Your task to perform on an android device: allow cookies in the chrome app Image 0: 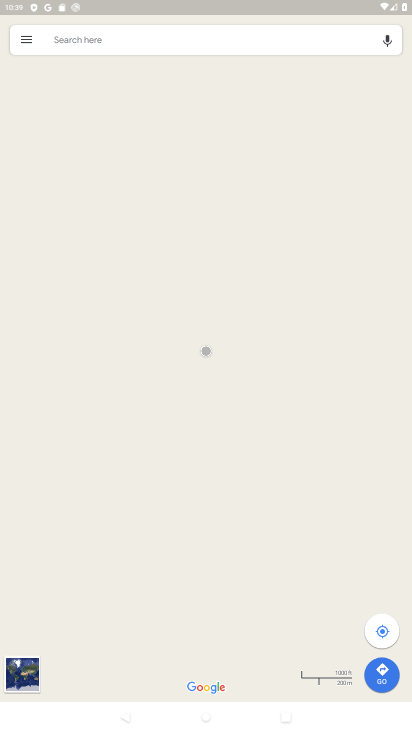
Step 0: press home button
Your task to perform on an android device: allow cookies in the chrome app Image 1: 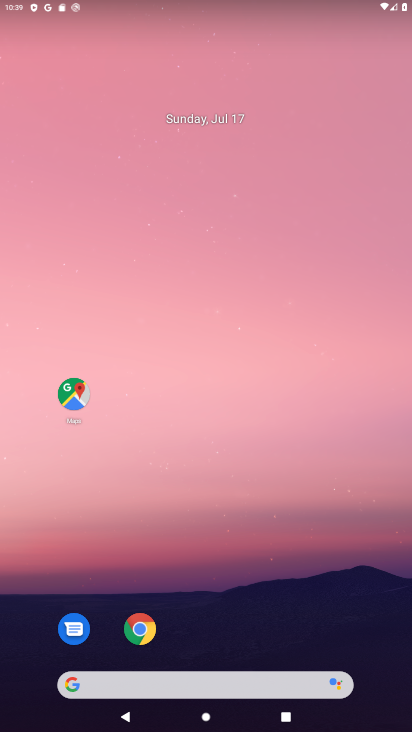
Step 1: click (139, 643)
Your task to perform on an android device: allow cookies in the chrome app Image 2: 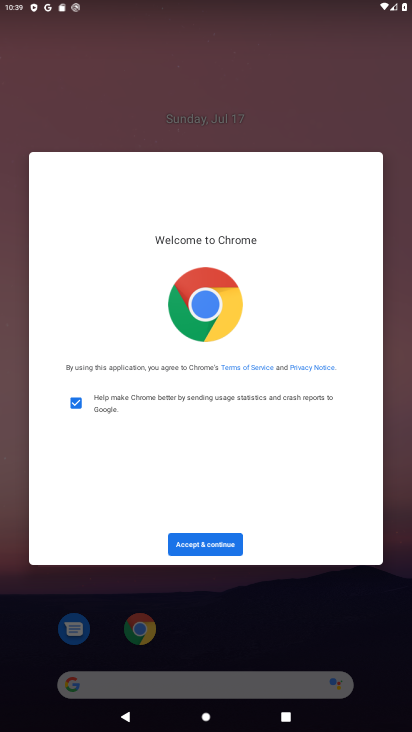
Step 2: click (211, 546)
Your task to perform on an android device: allow cookies in the chrome app Image 3: 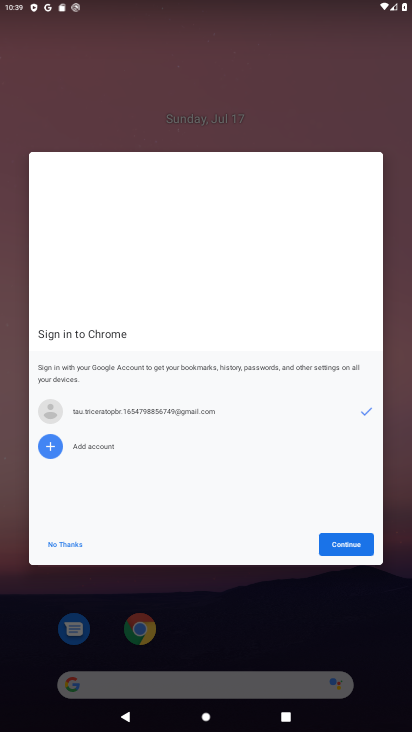
Step 3: click (340, 540)
Your task to perform on an android device: allow cookies in the chrome app Image 4: 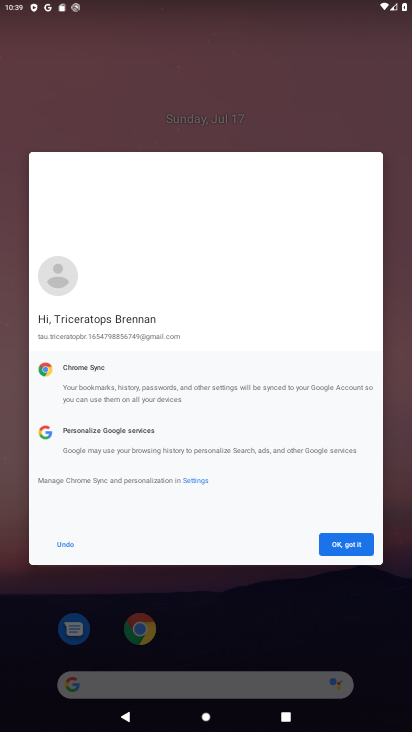
Step 4: click (349, 541)
Your task to perform on an android device: allow cookies in the chrome app Image 5: 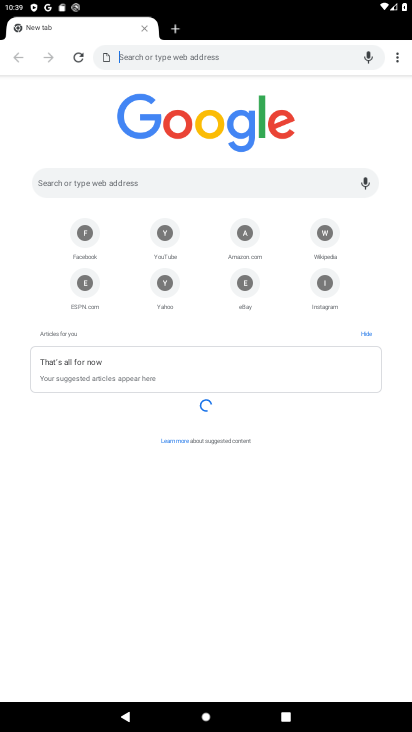
Step 5: click (393, 55)
Your task to perform on an android device: allow cookies in the chrome app Image 6: 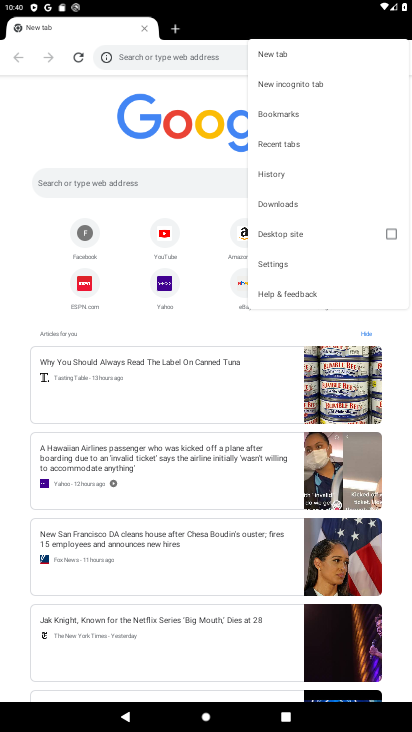
Step 6: click (278, 263)
Your task to perform on an android device: allow cookies in the chrome app Image 7: 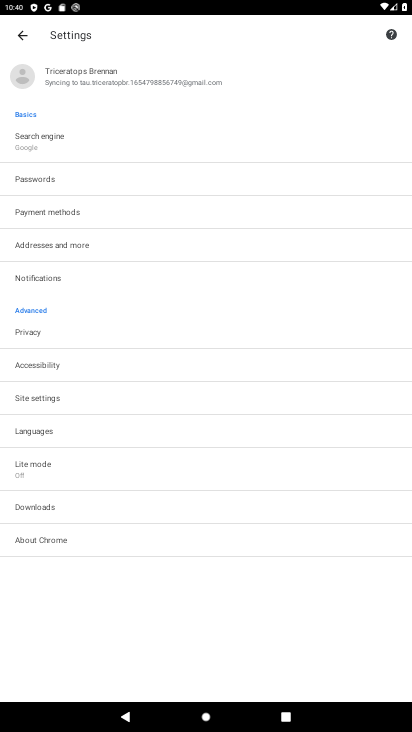
Step 7: click (20, 397)
Your task to perform on an android device: allow cookies in the chrome app Image 8: 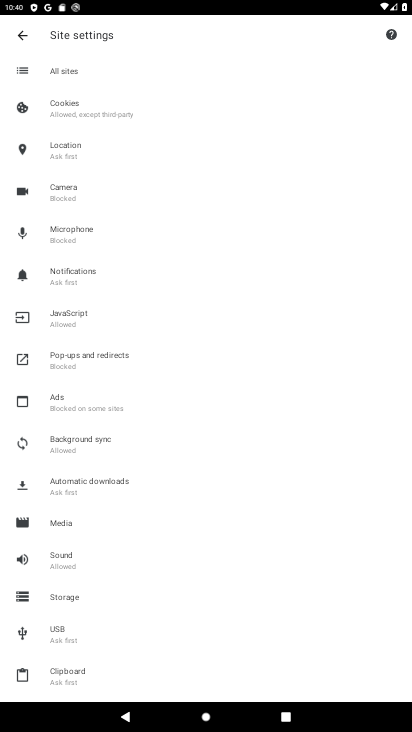
Step 8: click (64, 114)
Your task to perform on an android device: allow cookies in the chrome app Image 9: 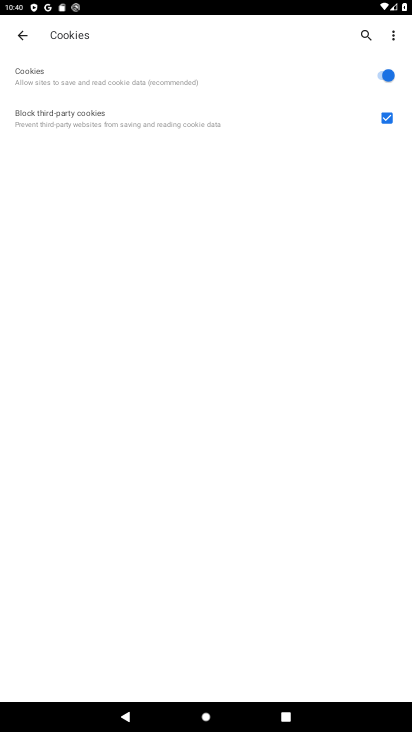
Step 9: task complete